Your task to perform on an android device: Go to Yahoo.com Image 0: 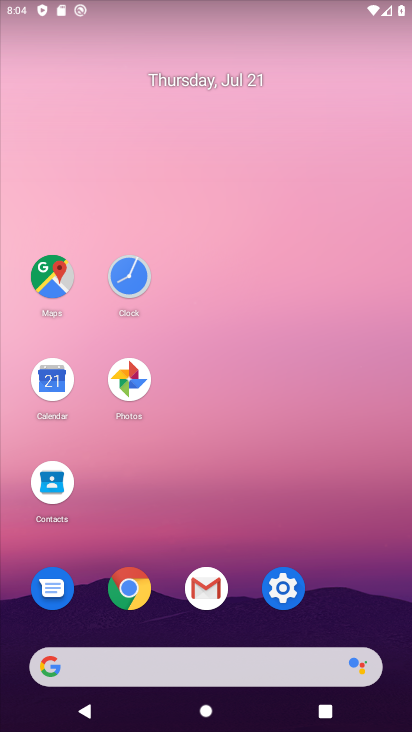
Step 0: click (130, 587)
Your task to perform on an android device: Go to Yahoo.com Image 1: 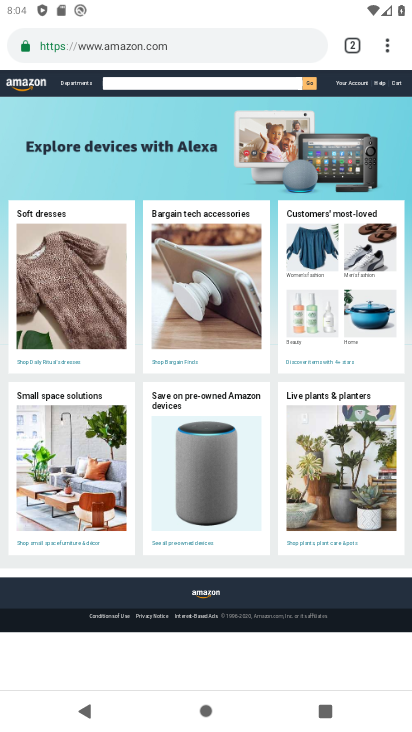
Step 1: click (388, 50)
Your task to perform on an android device: Go to Yahoo.com Image 2: 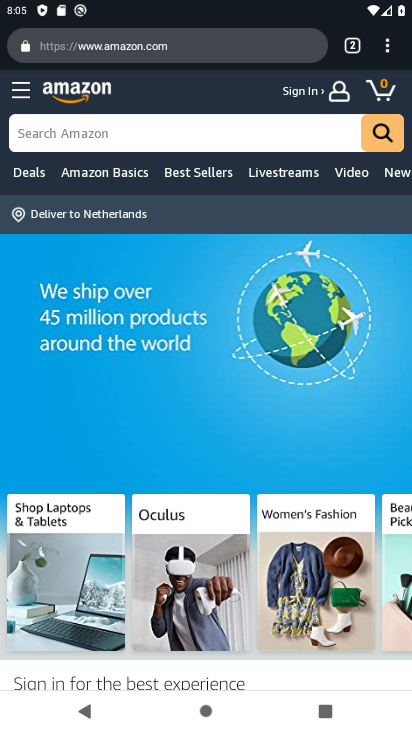
Step 2: click (391, 44)
Your task to perform on an android device: Go to Yahoo.com Image 3: 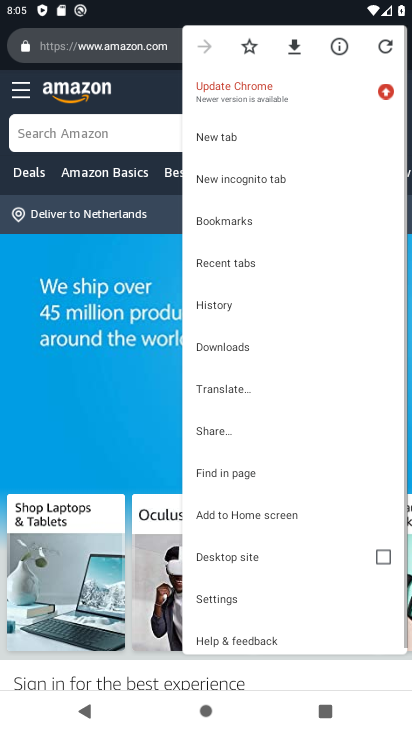
Step 3: click (233, 133)
Your task to perform on an android device: Go to Yahoo.com Image 4: 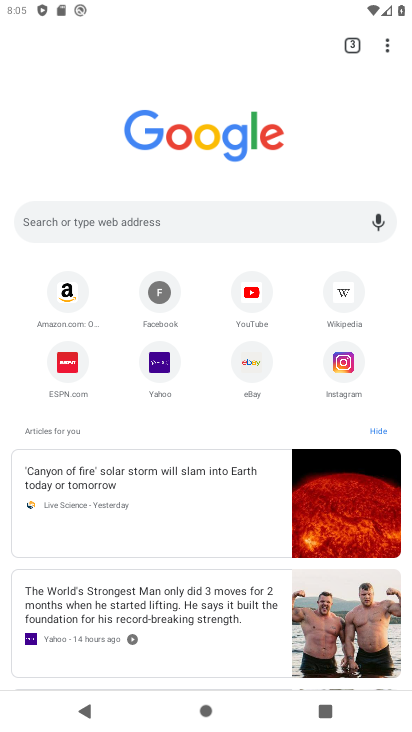
Step 4: click (154, 367)
Your task to perform on an android device: Go to Yahoo.com Image 5: 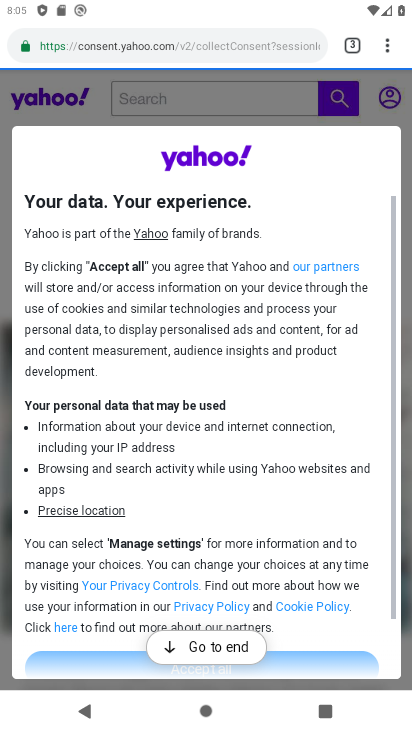
Step 5: click (220, 640)
Your task to perform on an android device: Go to Yahoo.com Image 6: 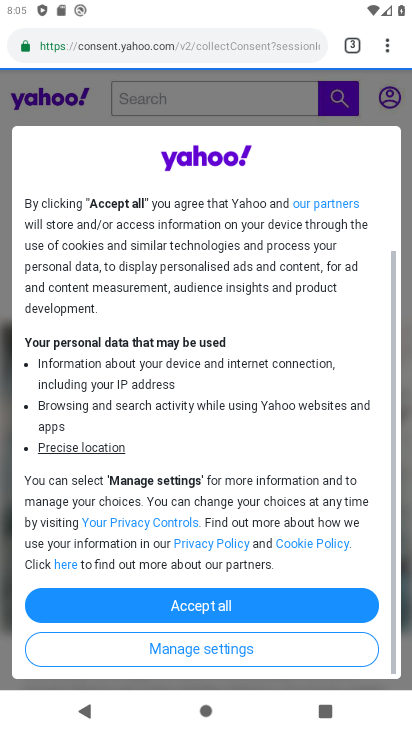
Step 6: click (212, 605)
Your task to perform on an android device: Go to Yahoo.com Image 7: 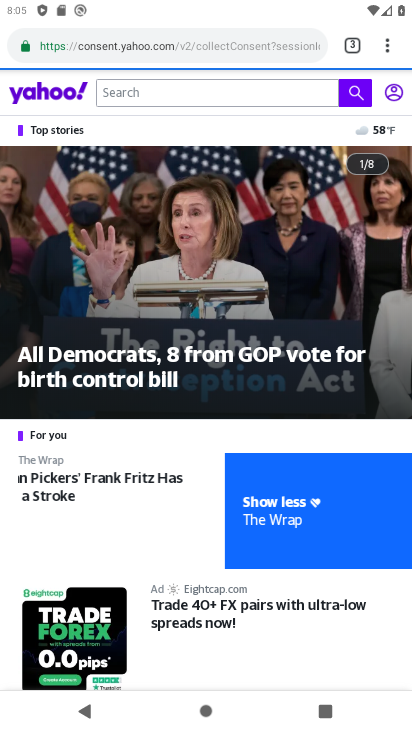
Step 7: task complete